Your task to perform on an android device: Open Yahoo.com Image 0: 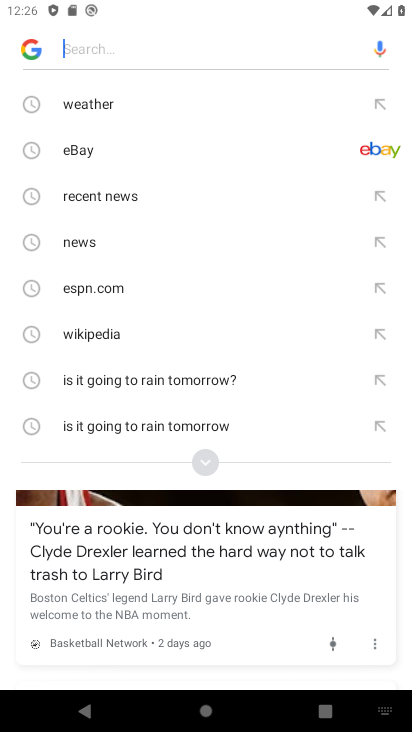
Step 0: press back button
Your task to perform on an android device: Open Yahoo.com Image 1: 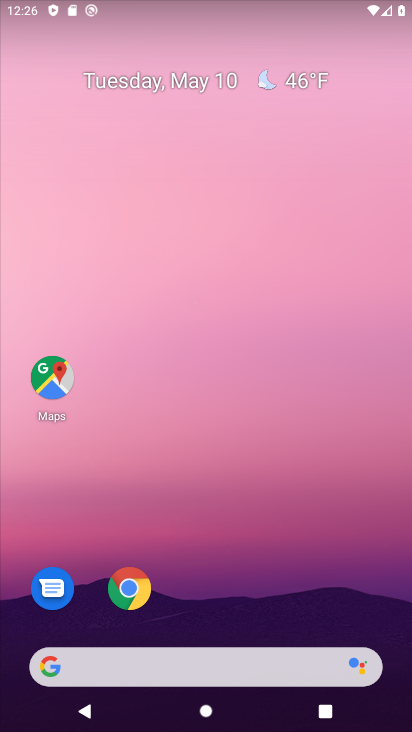
Step 1: click (145, 604)
Your task to perform on an android device: Open Yahoo.com Image 2: 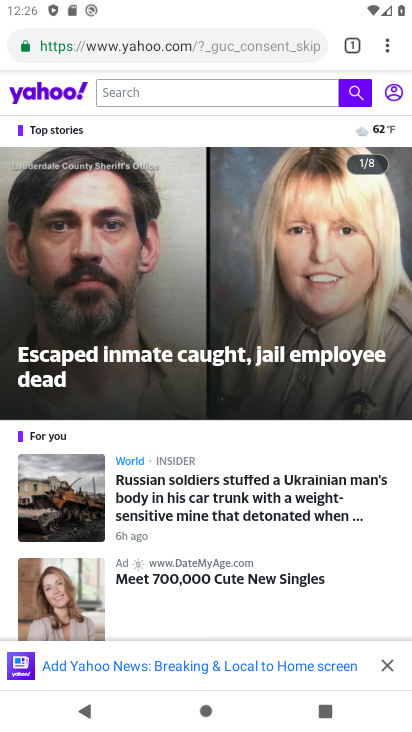
Step 2: task complete